Your task to perform on an android device: turn on location history Image 0: 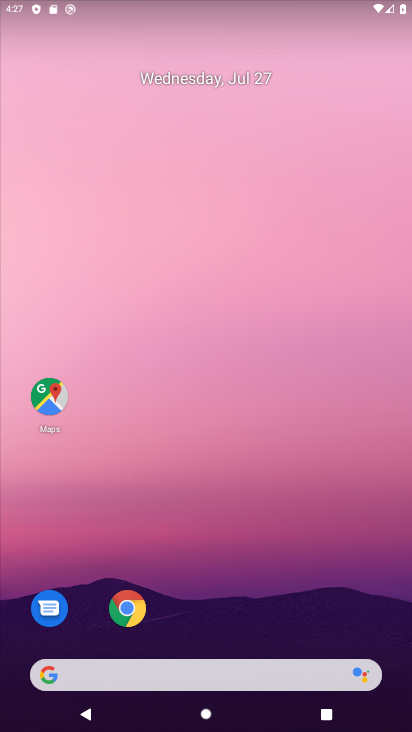
Step 0: press home button
Your task to perform on an android device: turn on location history Image 1: 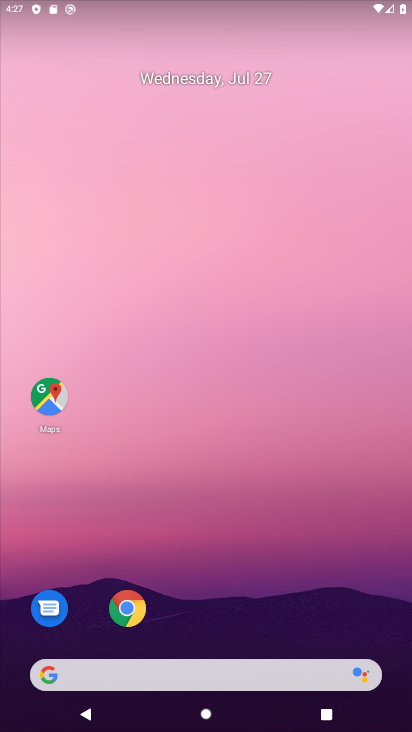
Step 1: drag from (229, 625) to (263, 399)
Your task to perform on an android device: turn on location history Image 2: 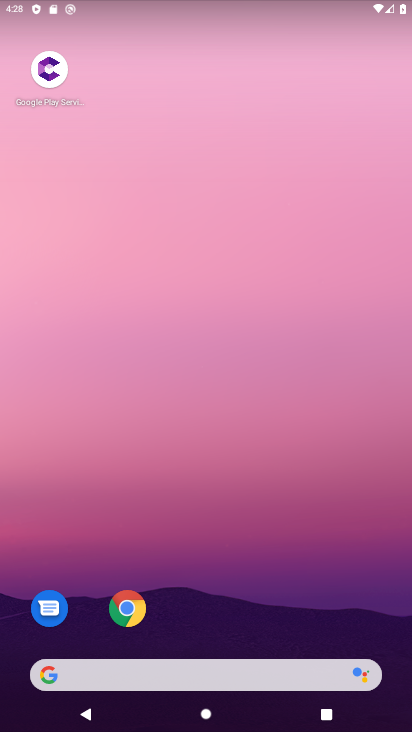
Step 2: drag from (277, 612) to (140, 4)
Your task to perform on an android device: turn on location history Image 3: 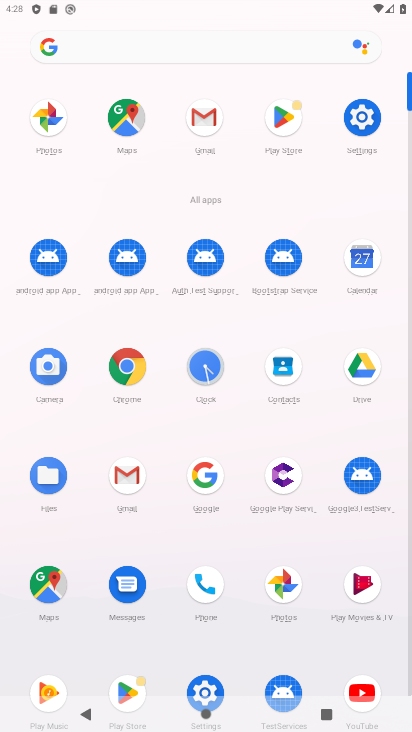
Step 3: click (365, 131)
Your task to perform on an android device: turn on location history Image 4: 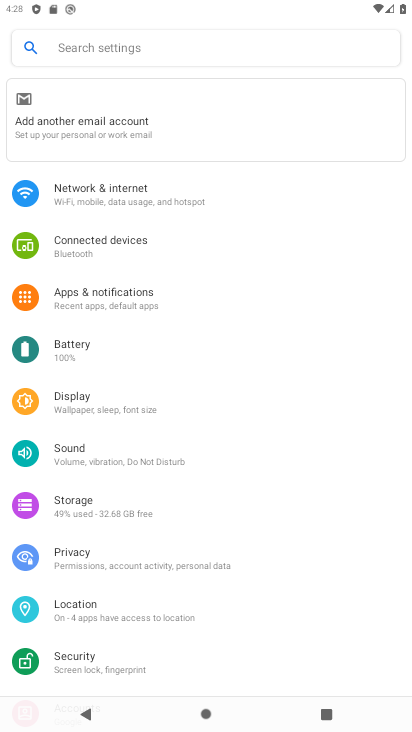
Step 4: click (73, 608)
Your task to perform on an android device: turn on location history Image 5: 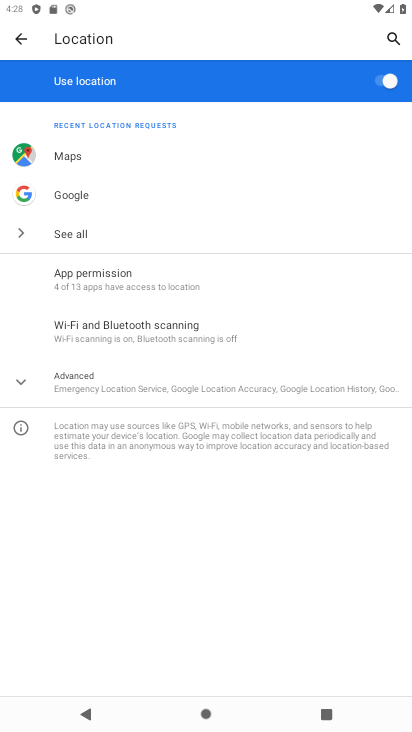
Step 5: click (65, 379)
Your task to perform on an android device: turn on location history Image 6: 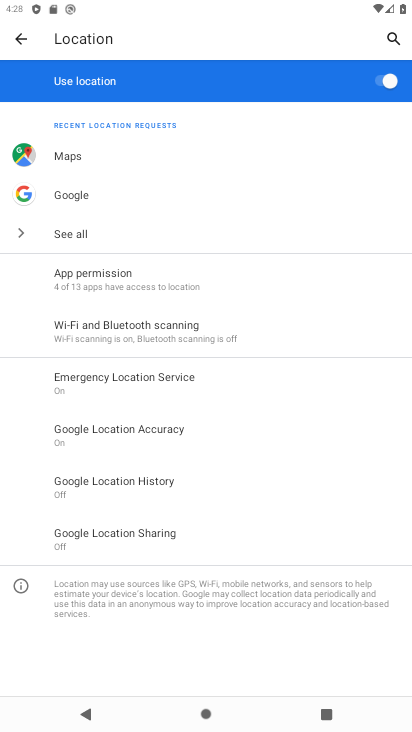
Step 6: click (82, 484)
Your task to perform on an android device: turn on location history Image 7: 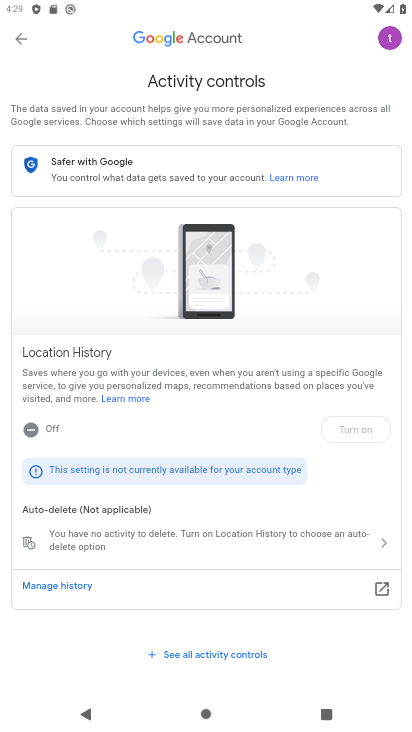
Step 7: click (355, 426)
Your task to perform on an android device: turn on location history Image 8: 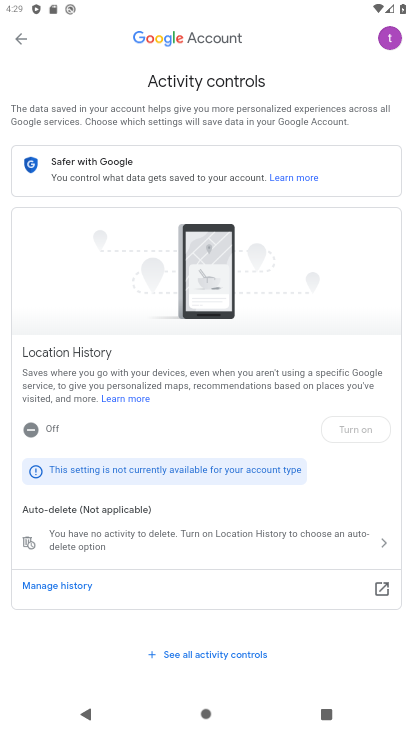
Step 8: click (355, 426)
Your task to perform on an android device: turn on location history Image 9: 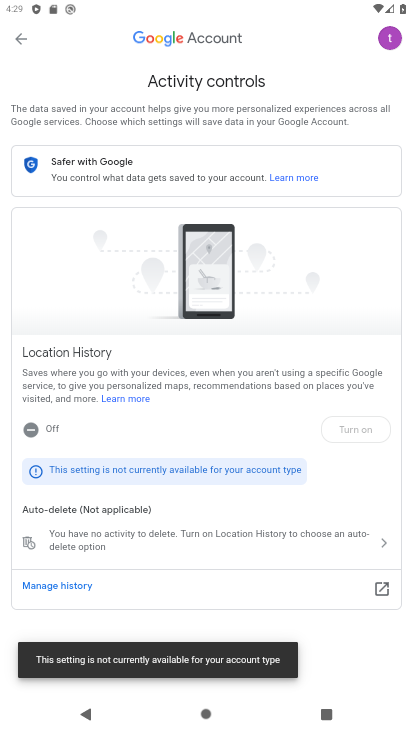
Step 9: click (358, 430)
Your task to perform on an android device: turn on location history Image 10: 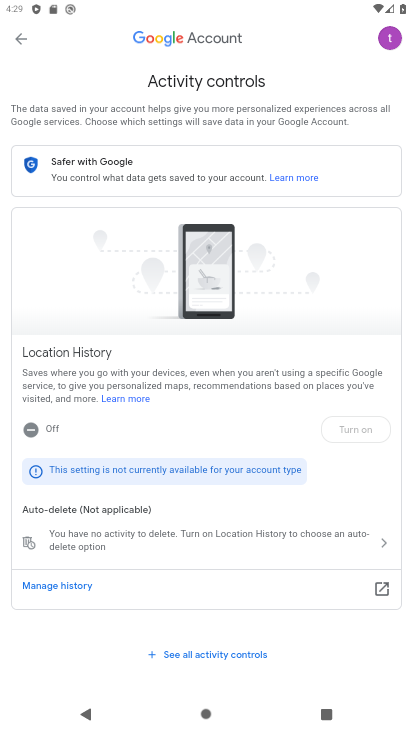
Step 10: task complete